Your task to perform on an android device: toggle notification dots Image 0: 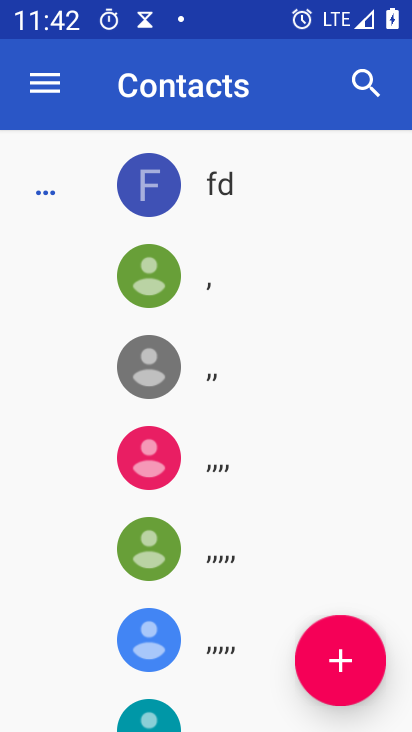
Step 0: press home button
Your task to perform on an android device: toggle notification dots Image 1: 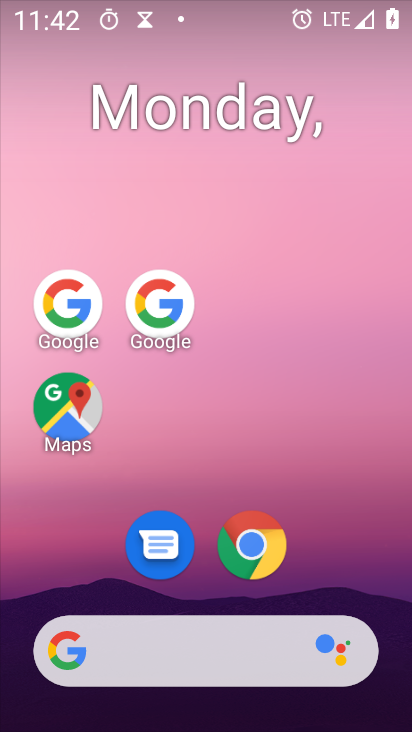
Step 1: drag from (160, 657) to (300, 140)
Your task to perform on an android device: toggle notification dots Image 2: 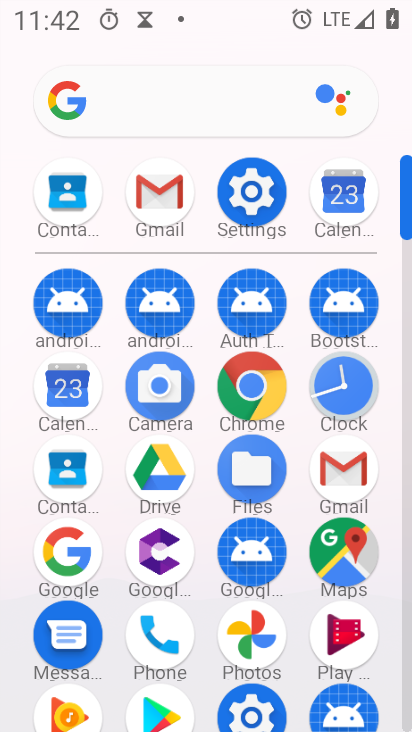
Step 2: click (251, 202)
Your task to perform on an android device: toggle notification dots Image 3: 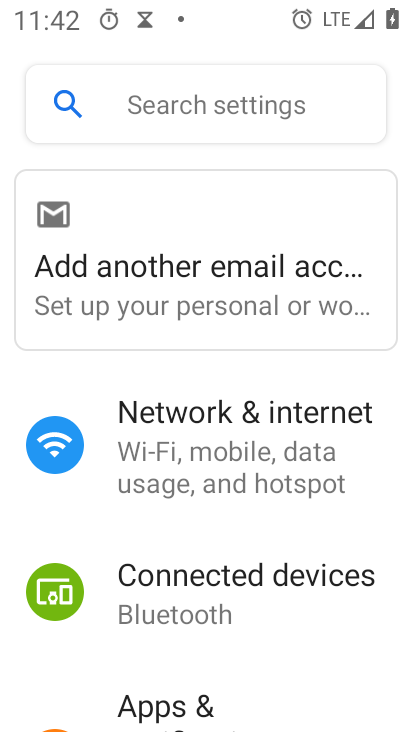
Step 3: drag from (213, 659) to (333, 297)
Your task to perform on an android device: toggle notification dots Image 4: 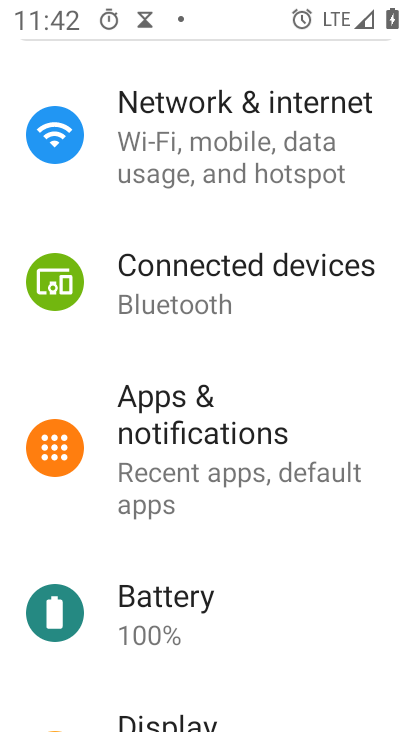
Step 4: click (239, 445)
Your task to perform on an android device: toggle notification dots Image 5: 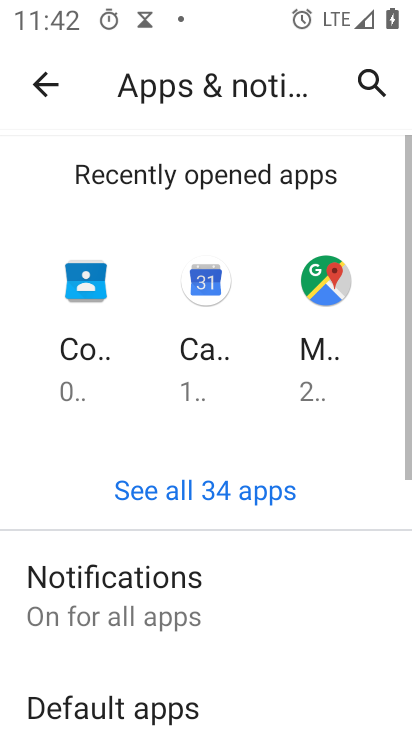
Step 5: click (165, 606)
Your task to perform on an android device: toggle notification dots Image 6: 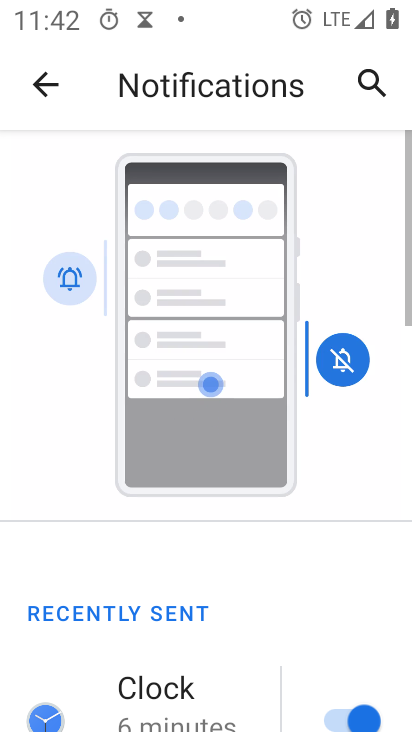
Step 6: drag from (231, 639) to (380, 144)
Your task to perform on an android device: toggle notification dots Image 7: 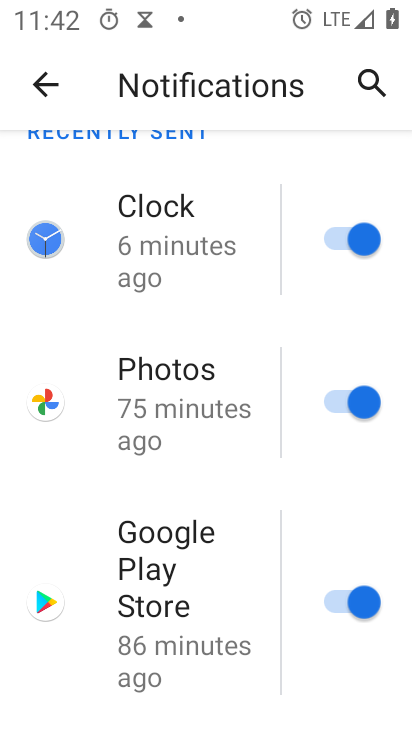
Step 7: drag from (243, 644) to (384, 86)
Your task to perform on an android device: toggle notification dots Image 8: 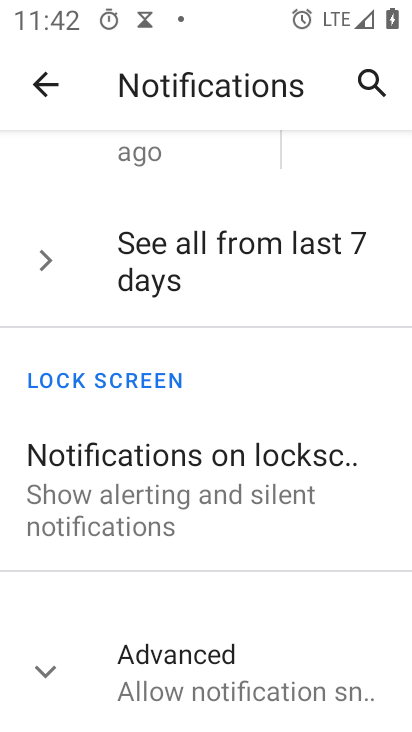
Step 8: drag from (235, 569) to (340, 176)
Your task to perform on an android device: toggle notification dots Image 9: 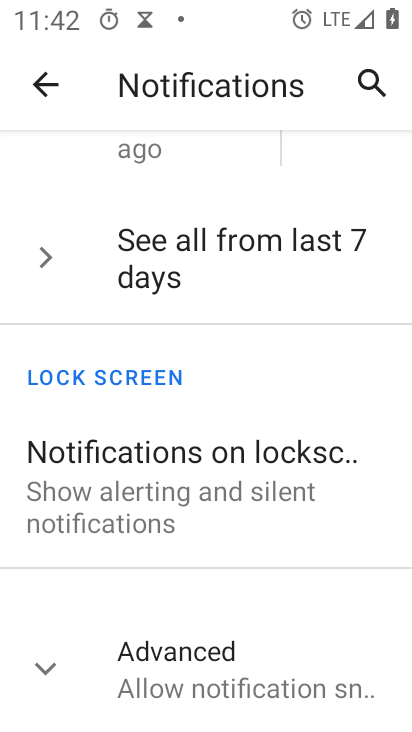
Step 9: click (183, 661)
Your task to perform on an android device: toggle notification dots Image 10: 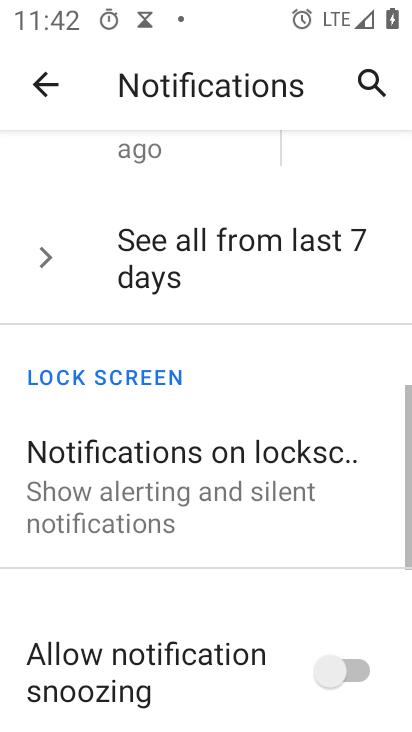
Step 10: drag from (242, 612) to (371, 146)
Your task to perform on an android device: toggle notification dots Image 11: 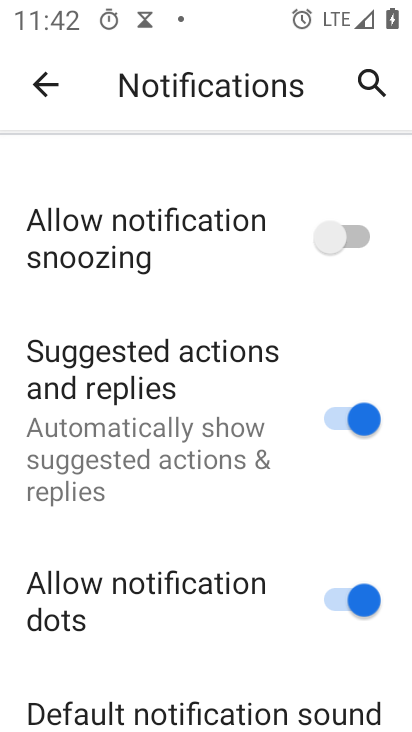
Step 11: click (338, 602)
Your task to perform on an android device: toggle notification dots Image 12: 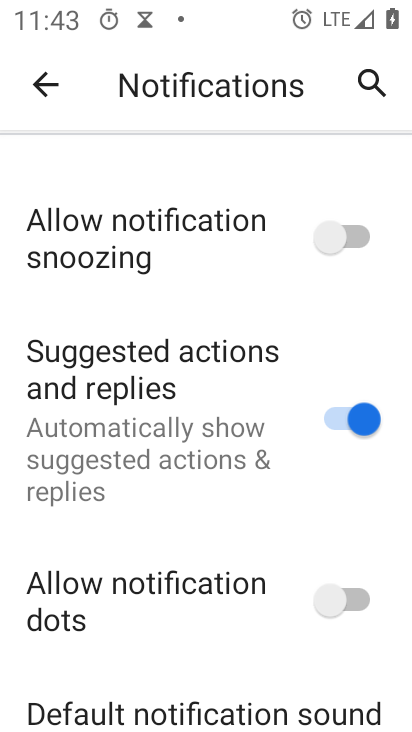
Step 12: task complete